Your task to perform on an android device: Open the map Image 0: 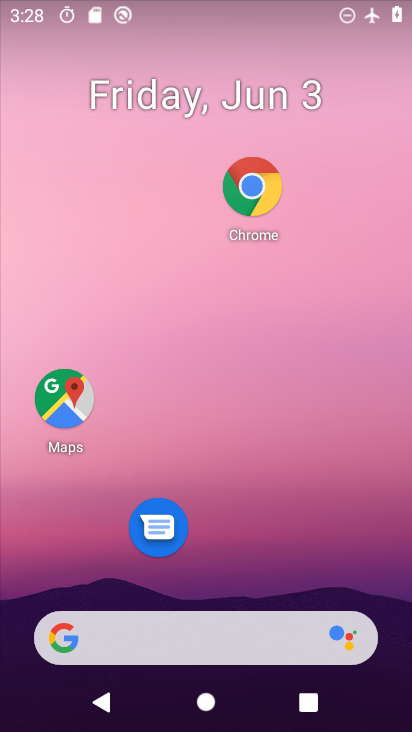
Step 0: click (71, 382)
Your task to perform on an android device: Open the map Image 1: 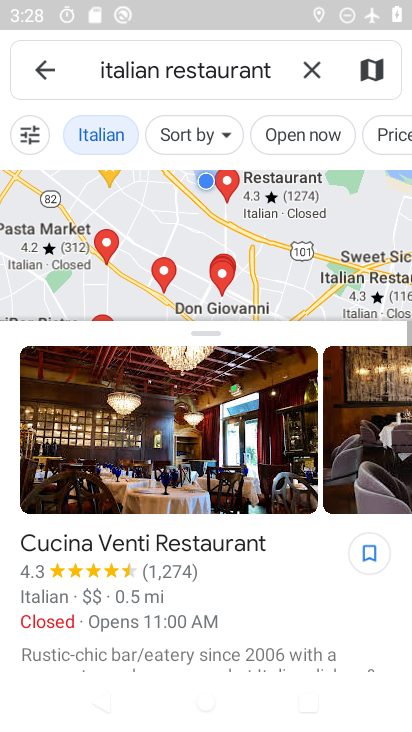
Step 1: task complete